Your task to perform on an android device: turn pop-ups on in chrome Image 0: 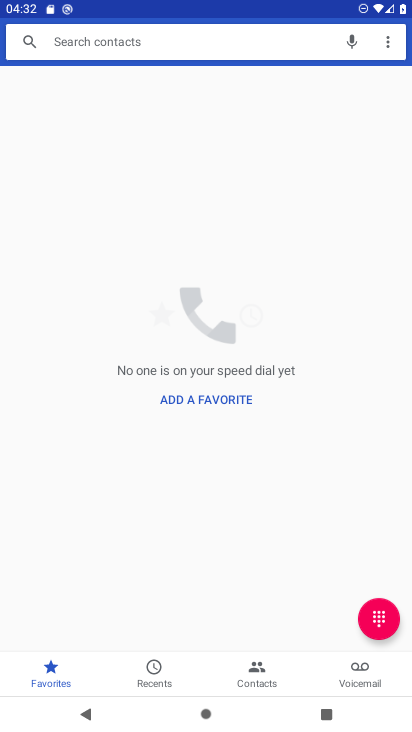
Step 0: press home button
Your task to perform on an android device: turn pop-ups on in chrome Image 1: 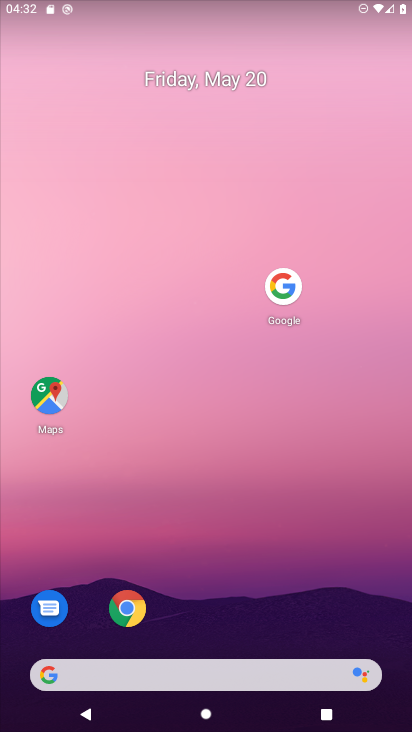
Step 1: click (122, 588)
Your task to perform on an android device: turn pop-ups on in chrome Image 2: 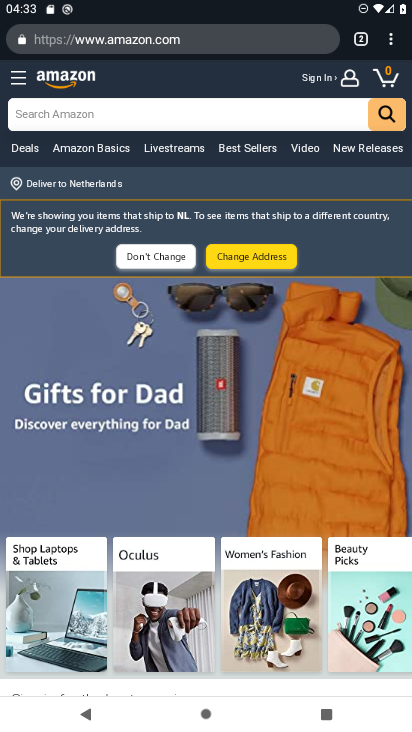
Step 2: drag from (388, 44) to (258, 466)
Your task to perform on an android device: turn pop-ups on in chrome Image 3: 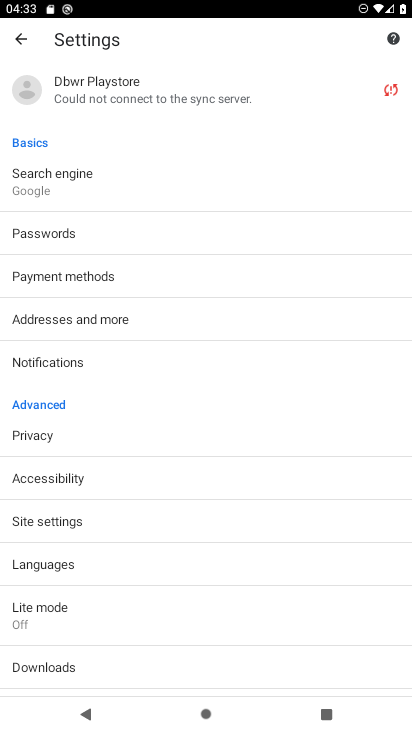
Step 3: click (39, 526)
Your task to perform on an android device: turn pop-ups on in chrome Image 4: 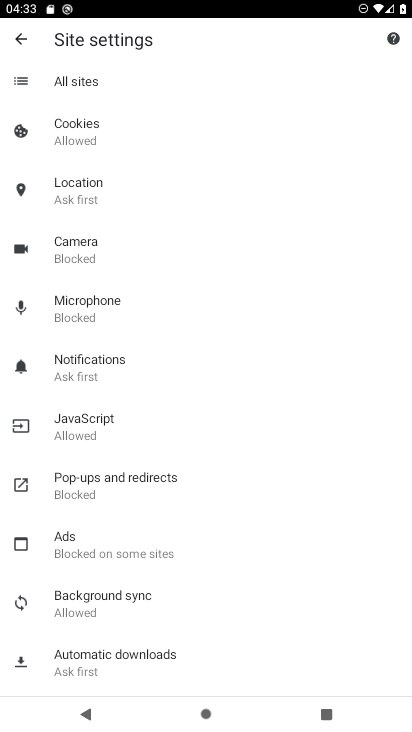
Step 4: click (97, 490)
Your task to perform on an android device: turn pop-ups on in chrome Image 5: 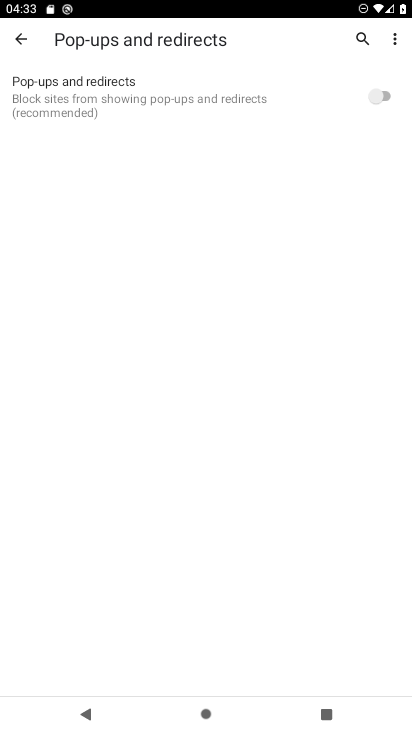
Step 5: click (381, 95)
Your task to perform on an android device: turn pop-ups on in chrome Image 6: 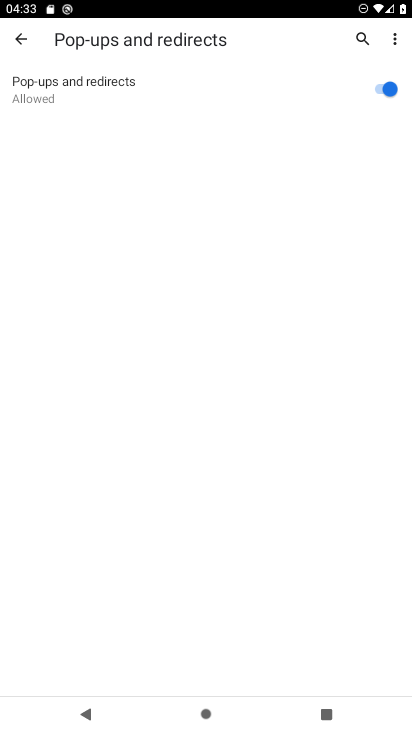
Step 6: task complete